Your task to perform on an android device: Open the stopwatch Image 0: 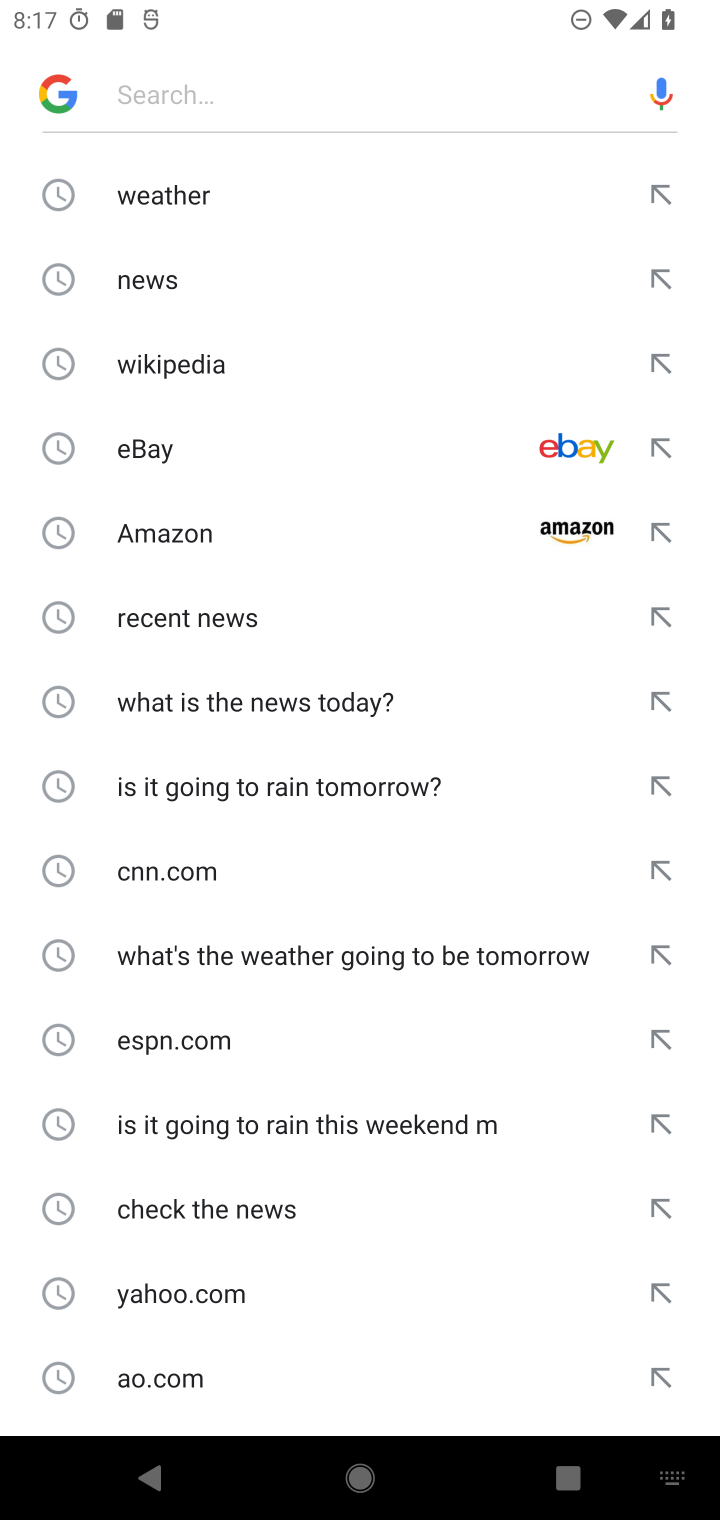
Step 0: press home button
Your task to perform on an android device: Open the stopwatch Image 1: 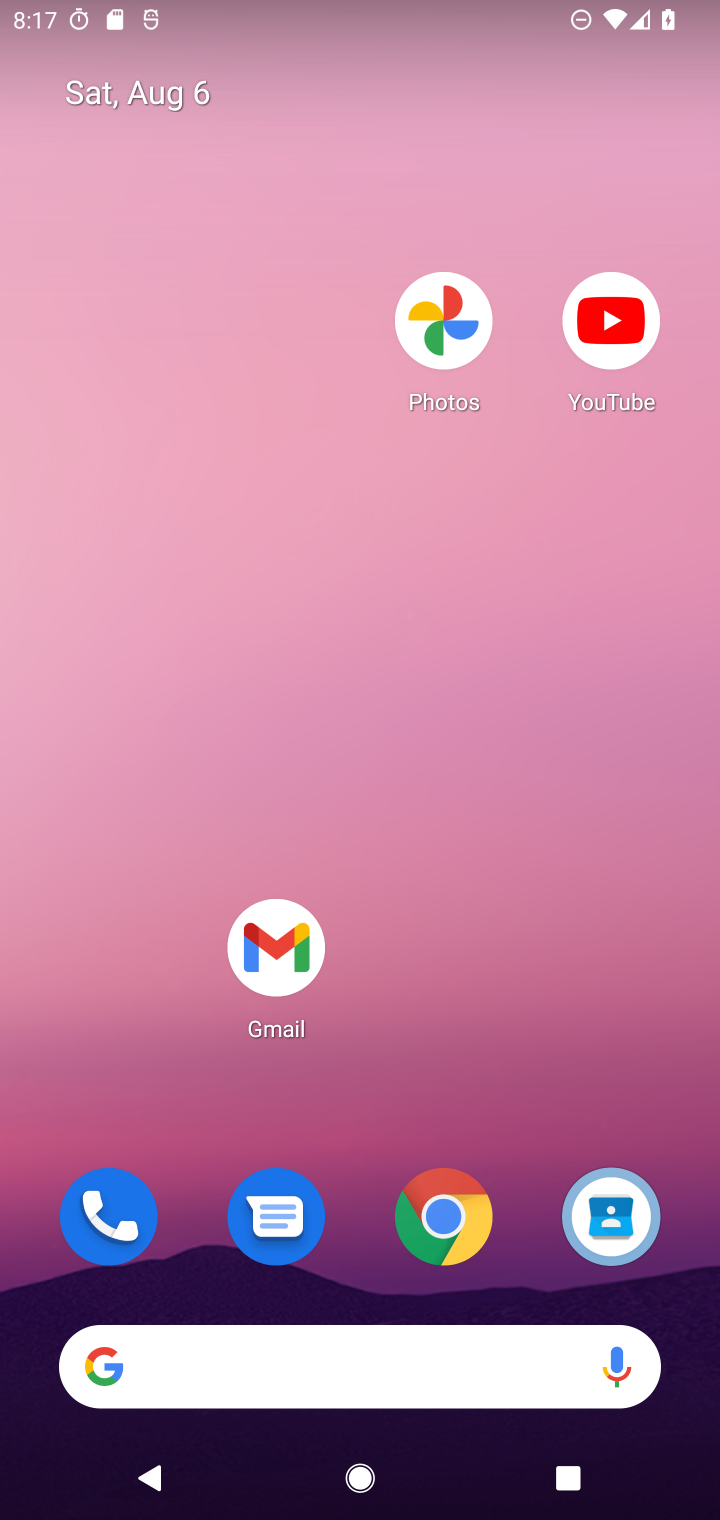
Step 1: drag from (470, 1135) to (412, 193)
Your task to perform on an android device: Open the stopwatch Image 2: 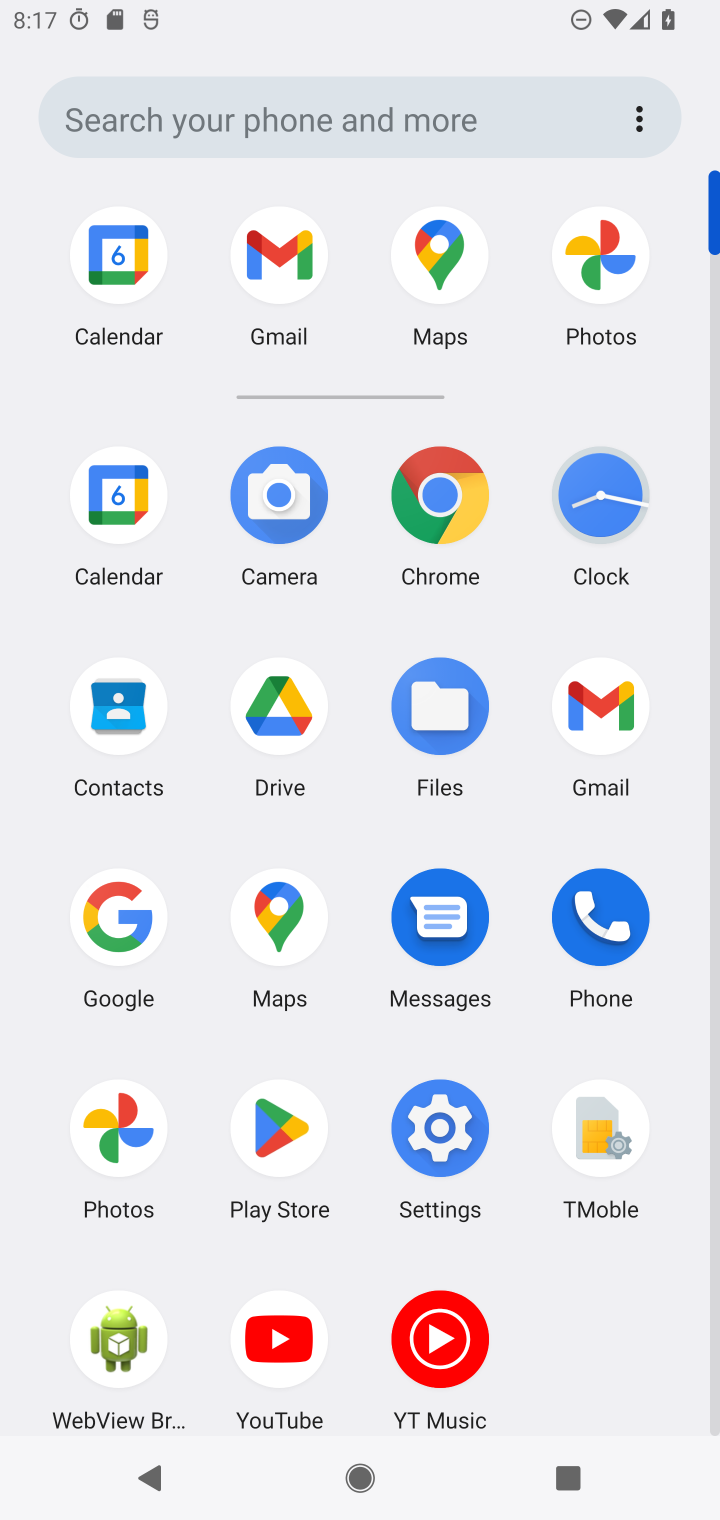
Step 2: click (605, 503)
Your task to perform on an android device: Open the stopwatch Image 3: 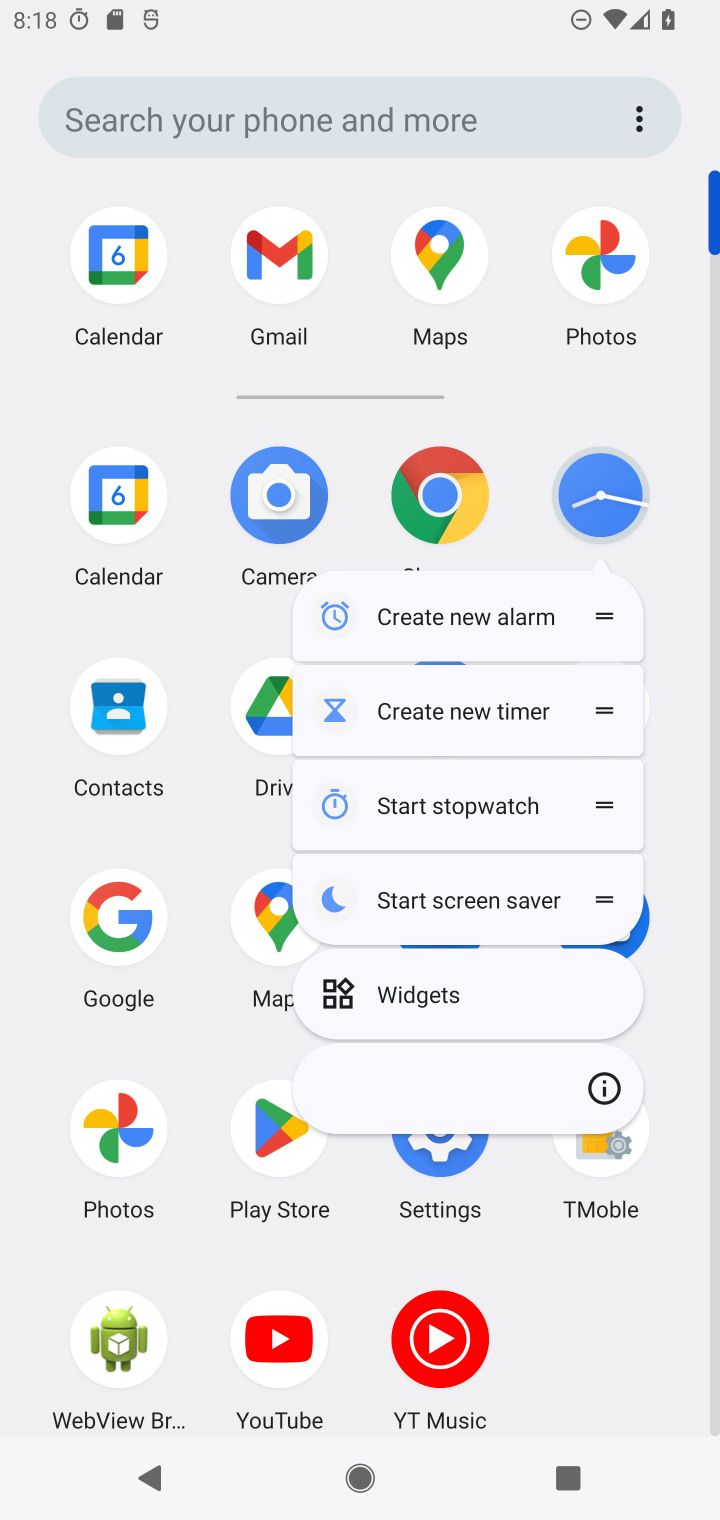
Step 3: click (605, 501)
Your task to perform on an android device: Open the stopwatch Image 4: 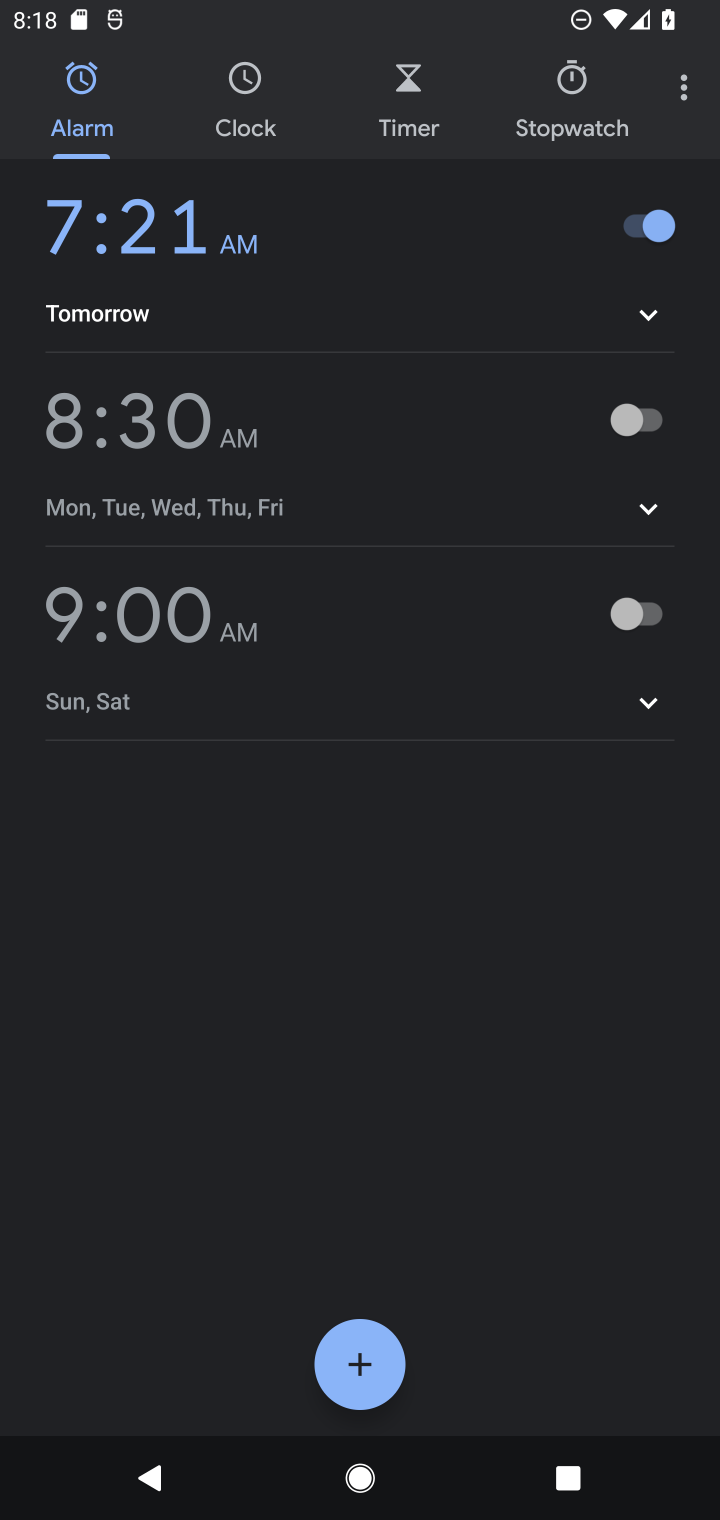
Step 4: click (589, 86)
Your task to perform on an android device: Open the stopwatch Image 5: 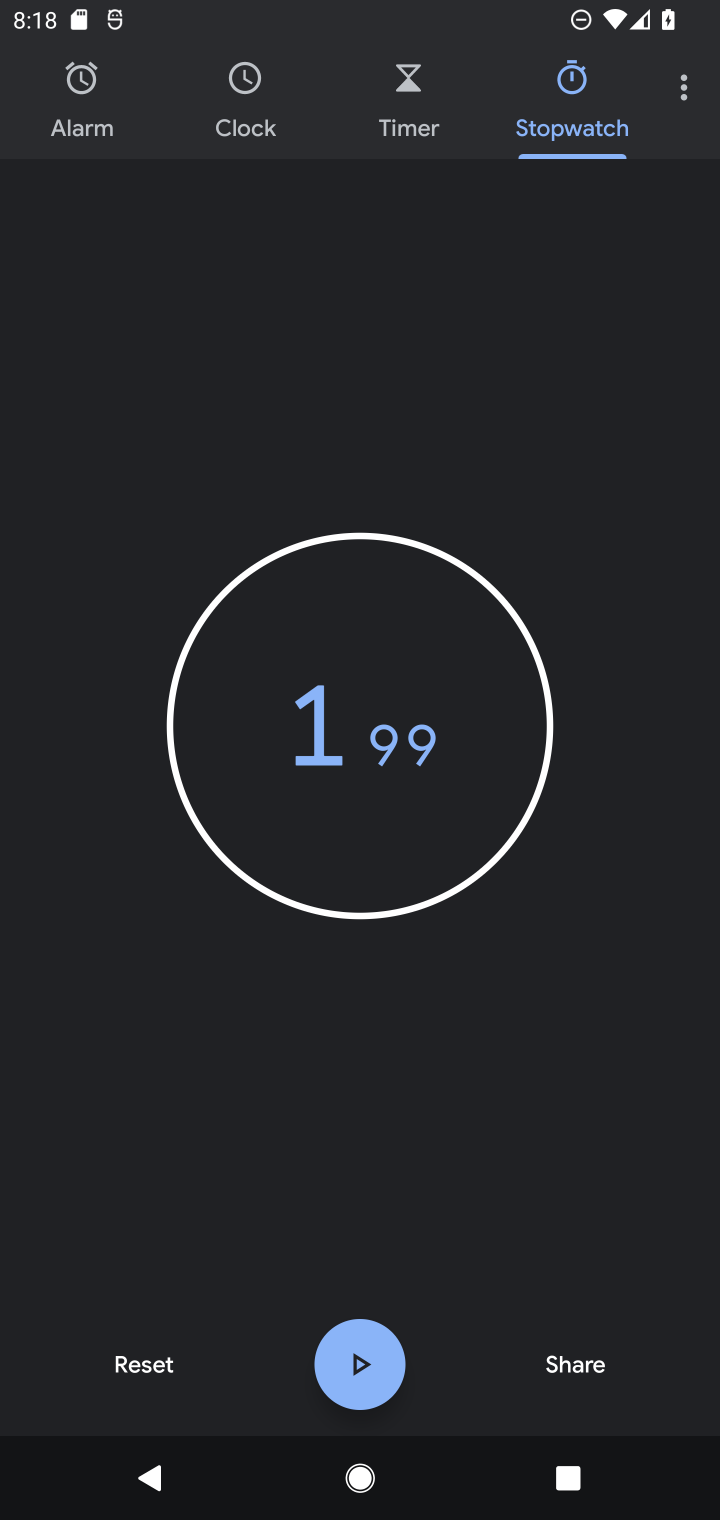
Step 5: task complete